Your task to perform on an android device: refresh tabs in the chrome app Image 0: 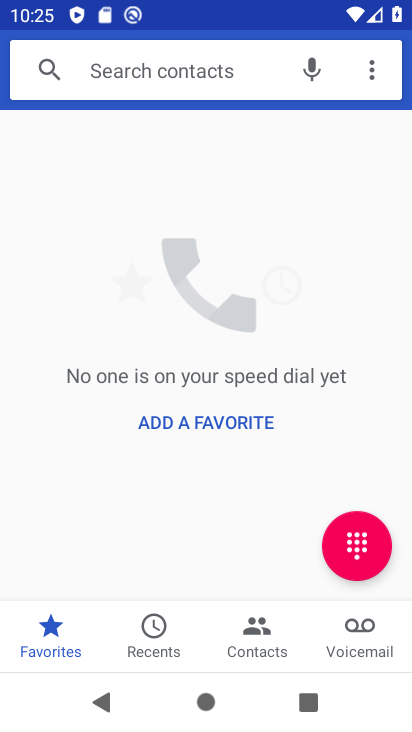
Step 0: drag from (345, 569) to (407, 430)
Your task to perform on an android device: refresh tabs in the chrome app Image 1: 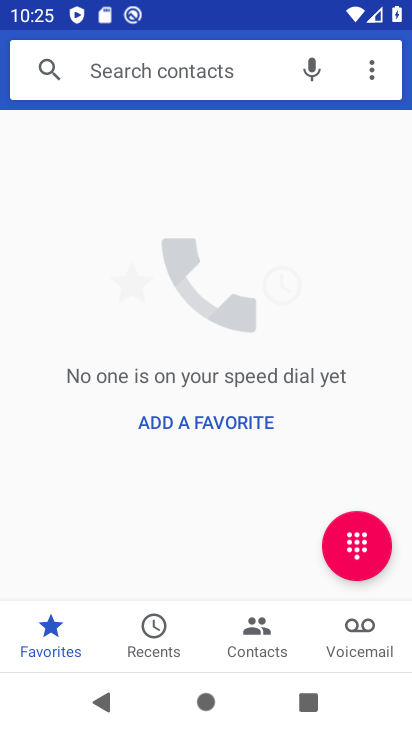
Step 1: press home button
Your task to perform on an android device: refresh tabs in the chrome app Image 2: 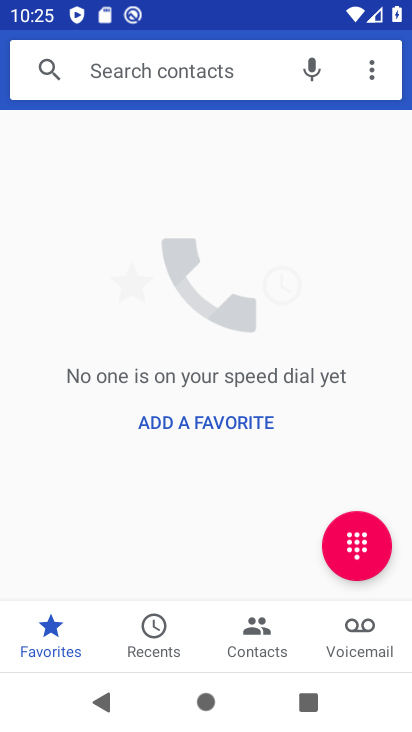
Step 2: click (407, 430)
Your task to perform on an android device: refresh tabs in the chrome app Image 3: 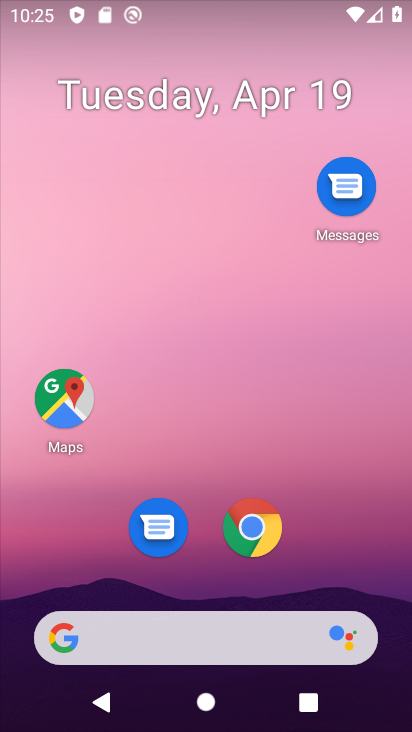
Step 3: click (251, 538)
Your task to perform on an android device: refresh tabs in the chrome app Image 4: 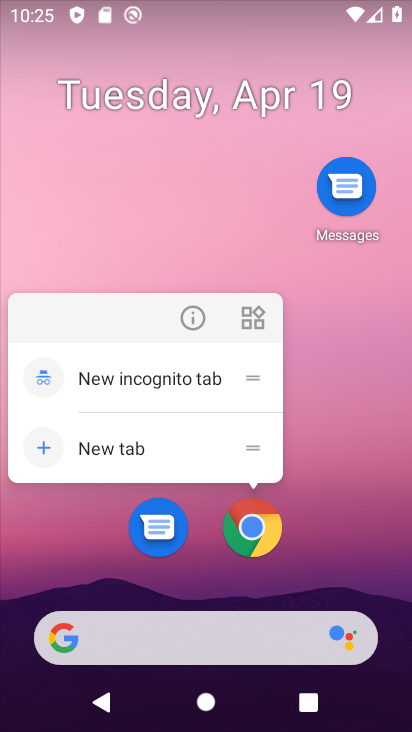
Step 4: click (248, 538)
Your task to perform on an android device: refresh tabs in the chrome app Image 5: 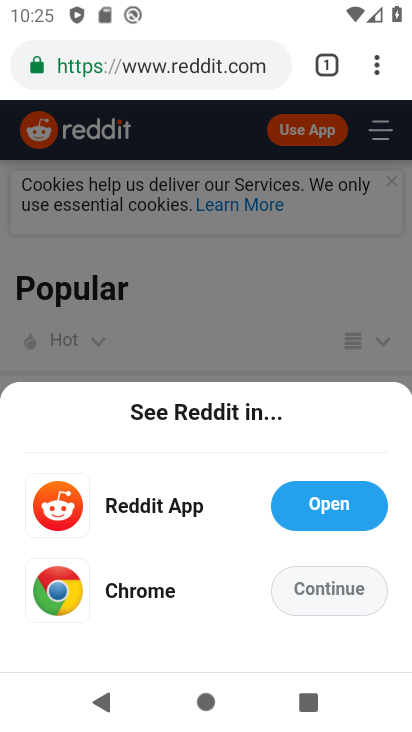
Step 5: click (376, 66)
Your task to perform on an android device: refresh tabs in the chrome app Image 6: 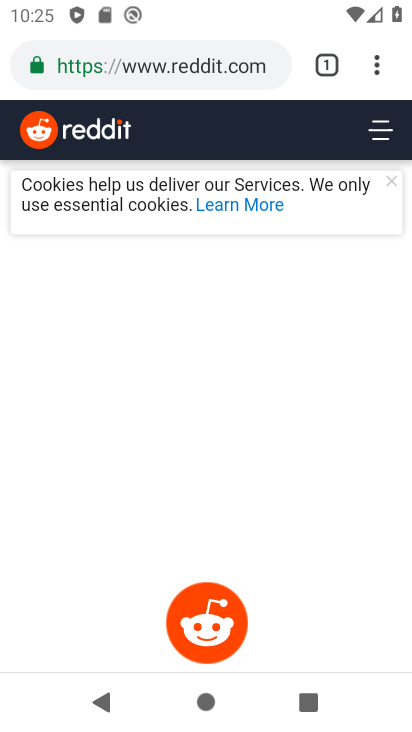
Step 6: task complete